Your task to perform on an android device: Open Yahoo.com Image 0: 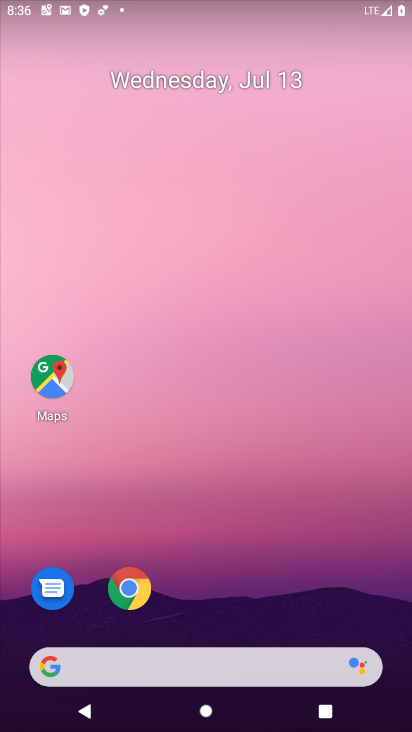
Step 0: drag from (270, 613) to (290, 99)
Your task to perform on an android device: Open Yahoo.com Image 1: 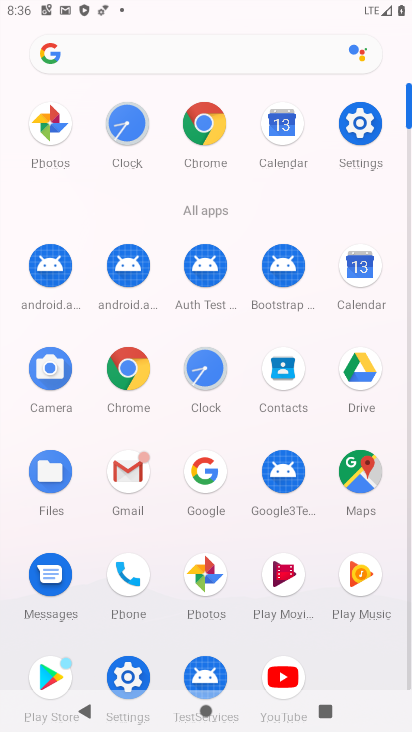
Step 1: click (217, 118)
Your task to perform on an android device: Open Yahoo.com Image 2: 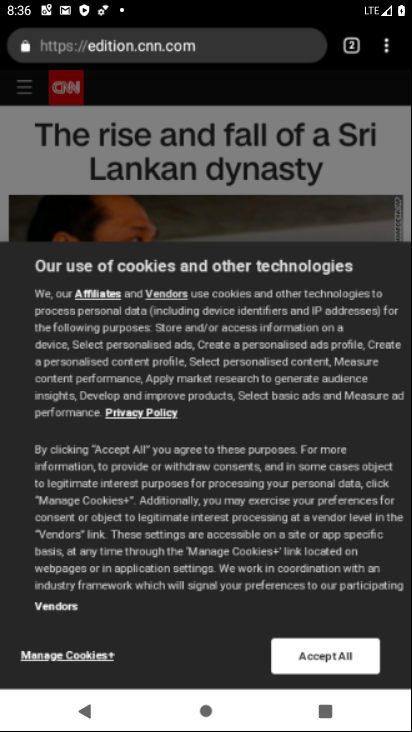
Step 2: click (392, 48)
Your task to perform on an android device: Open Yahoo.com Image 3: 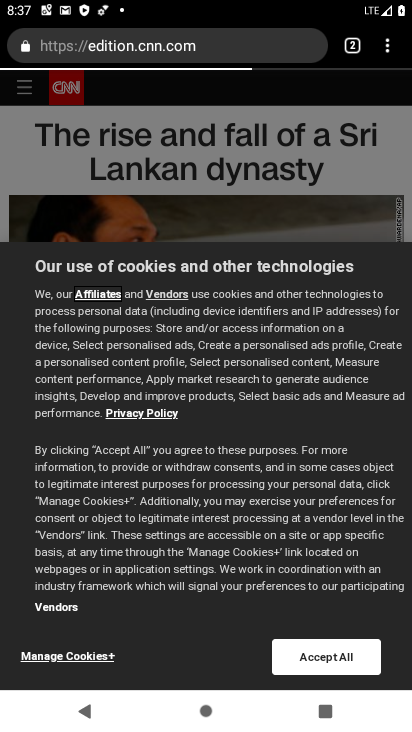
Step 3: click (392, 48)
Your task to perform on an android device: Open Yahoo.com Image 4: 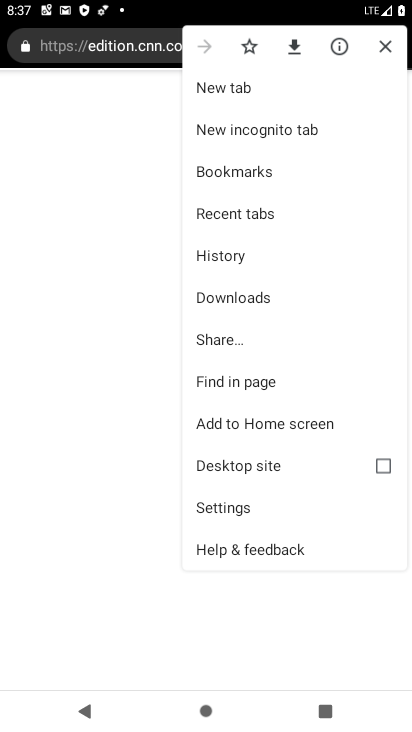
Step 4: click (228, 90)
Your task to perform on an android device: Open Yahoo.com Image 5: 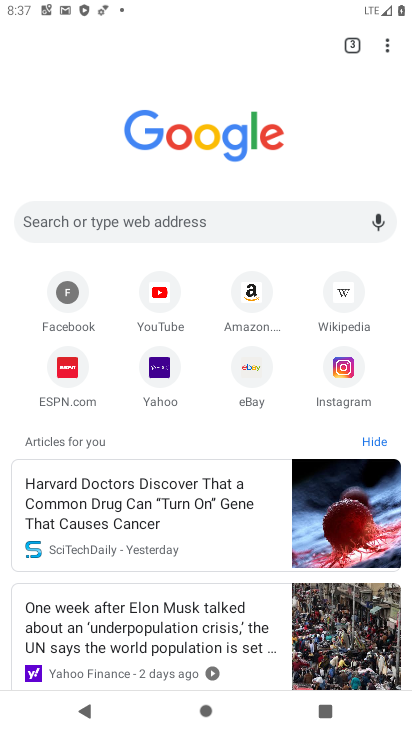
Step 5: click (155, 368)
Your task to perform on an android device: Open Yahoo.com Image 6: 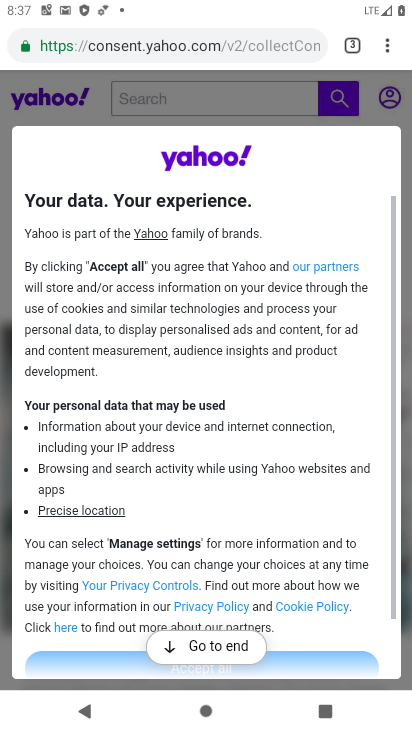
Step 6: task complete